Your task to perform on an android device: change the clock display to analog Image 0: 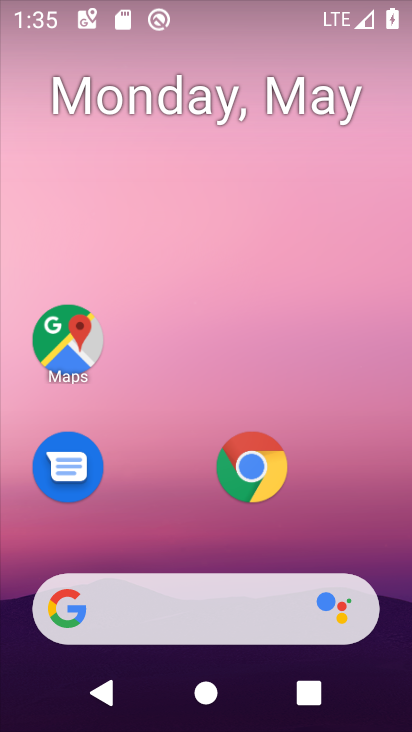
Step 0: drag from (224, 532) to (197, 131)
Your task to perform on an android device: change the clock display to analog Image 1: 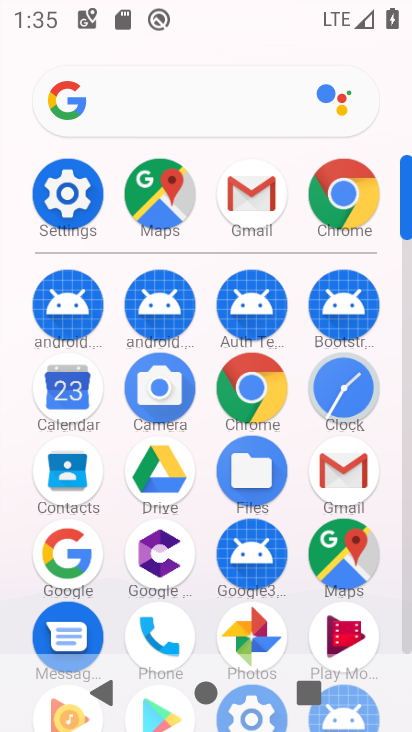
Step 1: click (79, 190)
Your task to perform on an android device: change the clock display to analog Image 2: 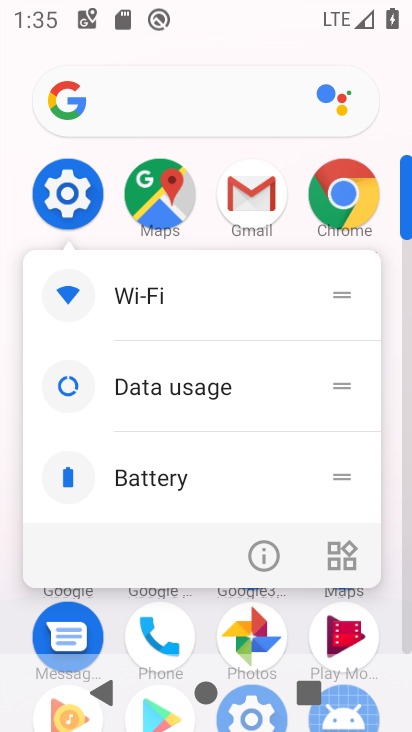
Step 2: click (285, 564)
Your task to perform on an android device: change the clock display to analog Image 3: 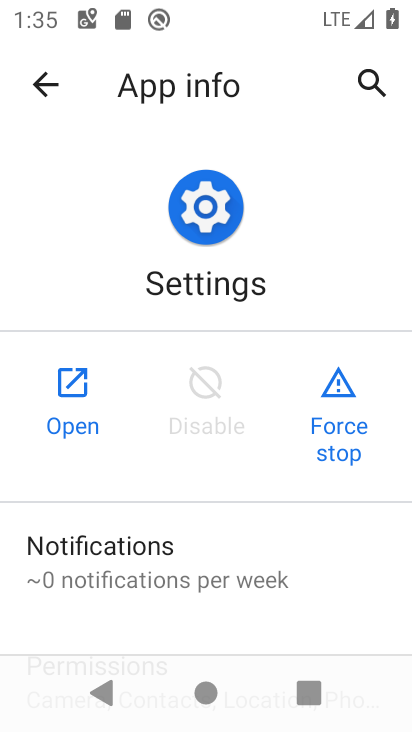
Step 3: click (76, 402)
Your task to perform on an android device: change the clock display to analog Image 4: 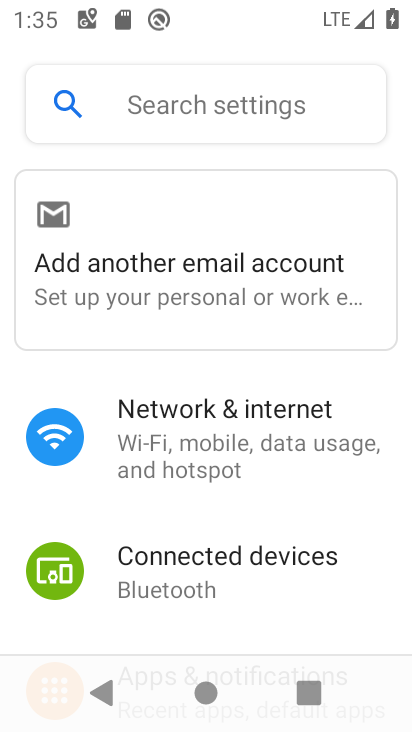
Step 4: drag from (203, 550) to (289, 199)
Your task to perform on an android device: change the clock display to analog Image 5: 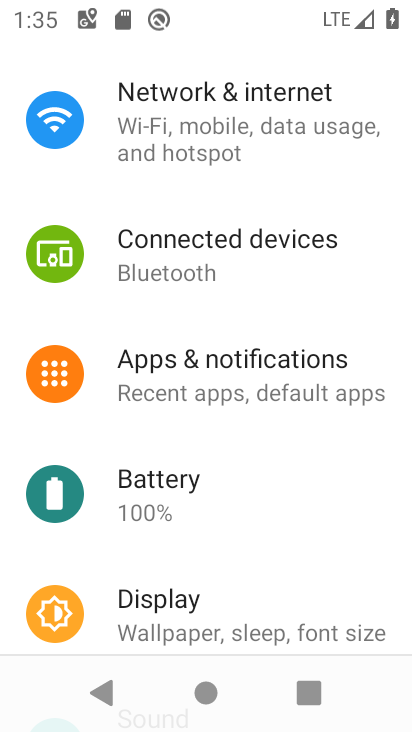
Step 5: press home button
Your task to perform on an android device: change the clock display to analog Image 6: 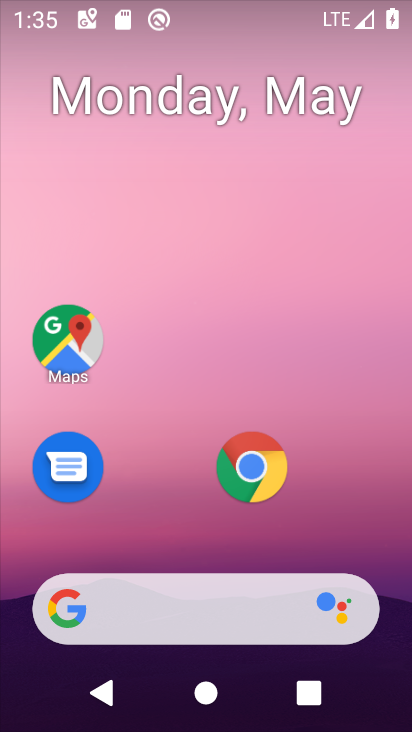
Step 6: drag from (219, 563) to (213, 130)
Your task to perform on an android device: change the clock display to analog Image 7: 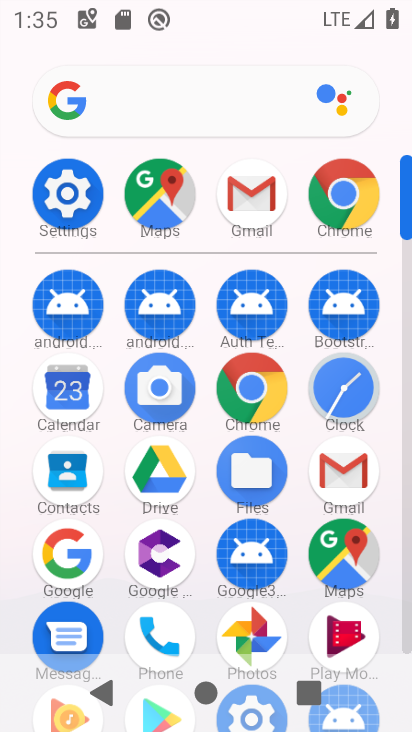
Step 7: click (342, 403)
Your task to perform on an android device: change the clock display to analog Image 8: 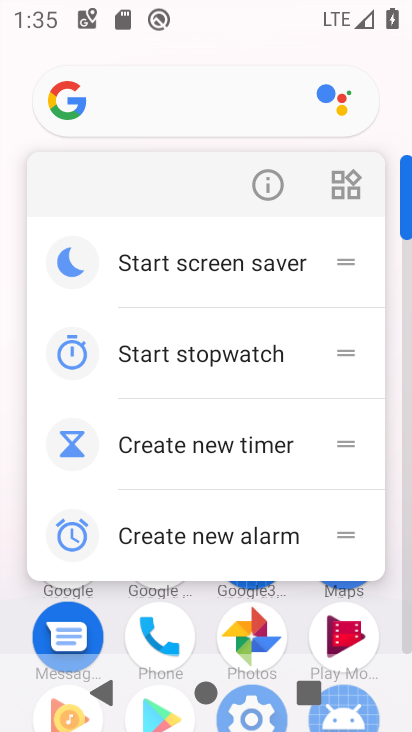
Step 8: click (273, 191)
Your task to perform on an android device: change the clock display to analog Image 9: 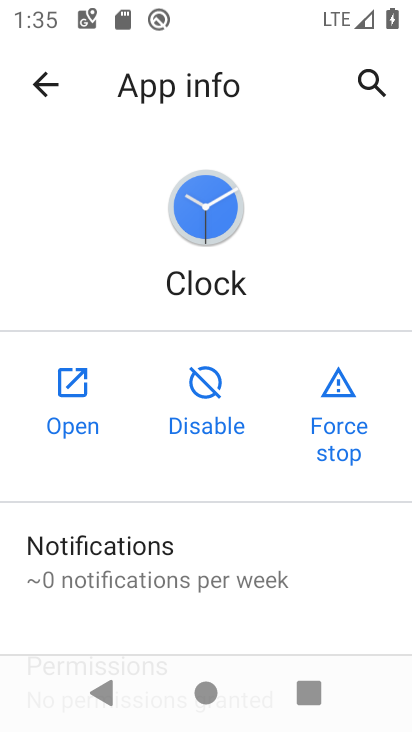
Step 9: click (102, 390)
Your task to perform on an android device: change the clock display to analog Image 10: 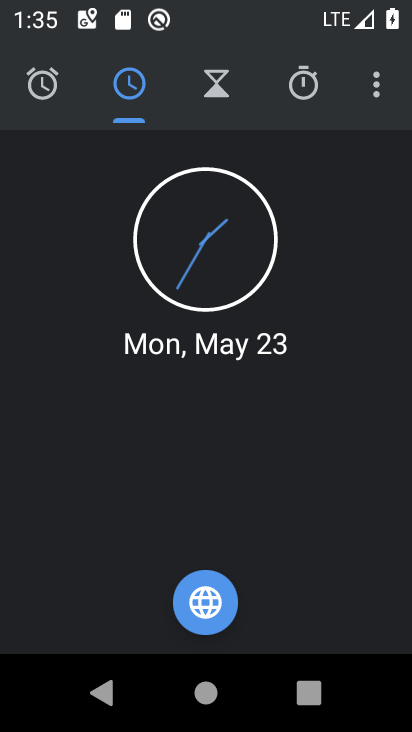
Step 10: click (385, 88)
Your task to perform on an android device: change the clock display to analog Image 11: 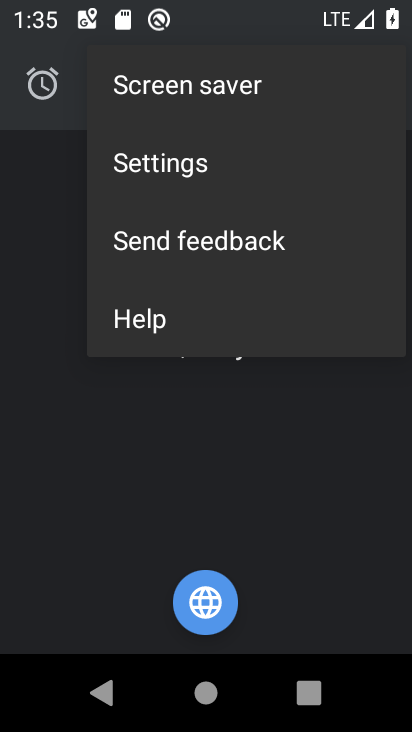
Step 11: click (192, 171)
Your task to perform on an android device: change the clock display to analog Image 12: 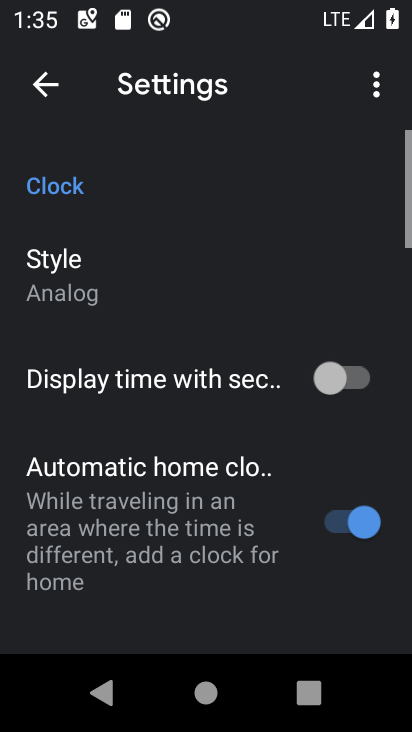
Step 12: click (113, 239)
Your task to perform on an android device: change the clock display to analog Image 13: 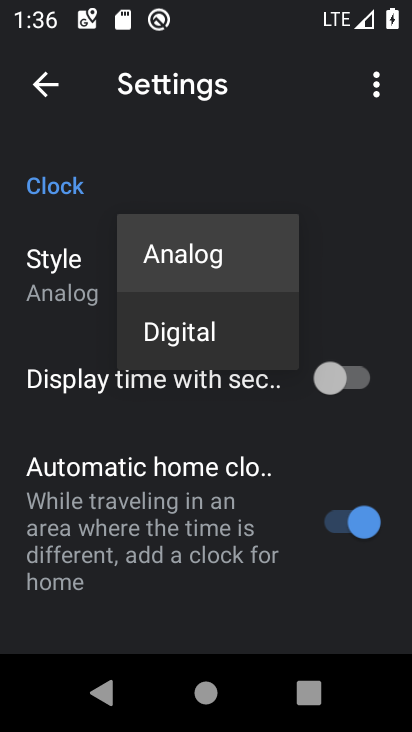
Step 13: task complete